Your task to perform on an android device: change alarm snooze length Image 0: 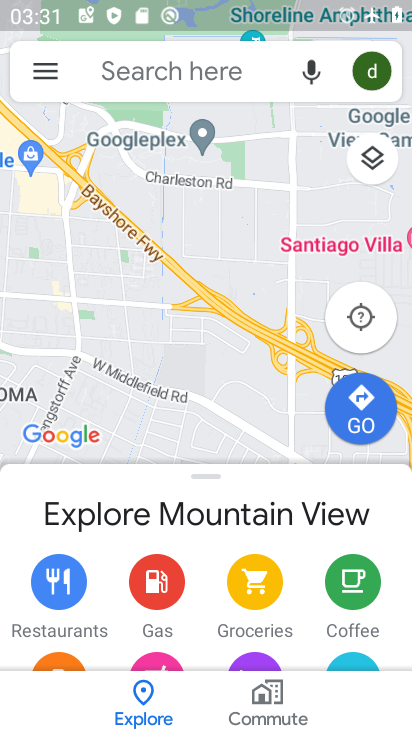
Step 0: press home button
Your task to perform on an android device: change alarm snooze length Image 1: 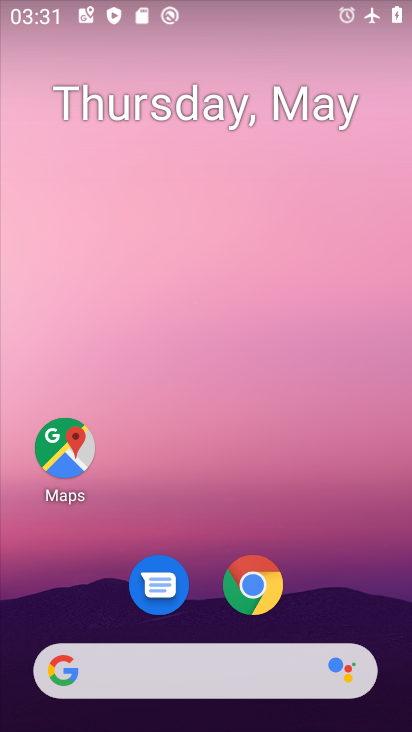
Step 1: drag from (226, 517) to (200, 1)
Your task to perform on an android device: change alarm snooze length Image 2: 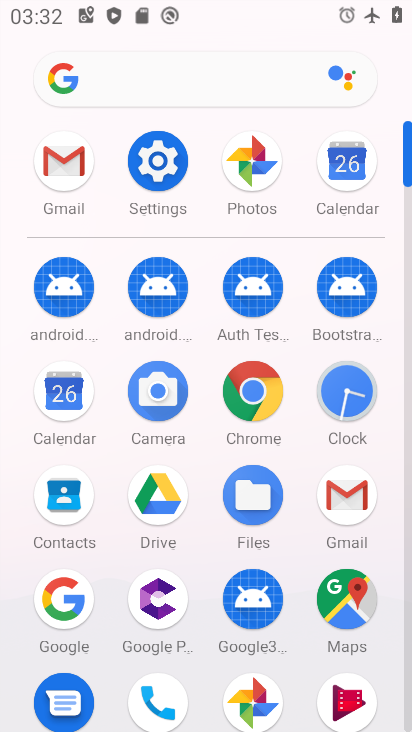
Step 2: click (342, 392)
Your task to perform on an android device: change alarm snooze length Image 3: 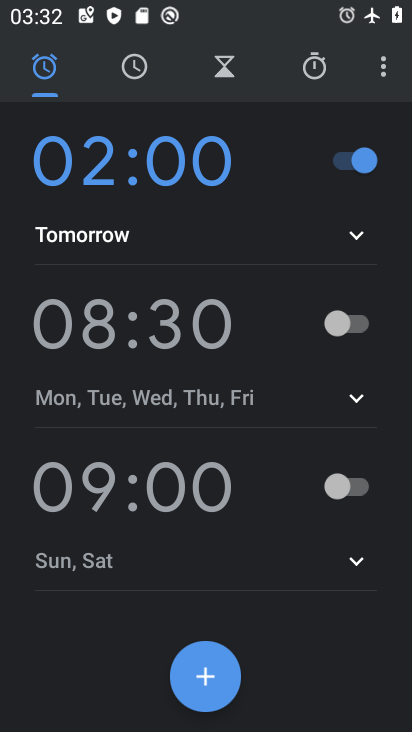
Step 3: click (378, 73)
Your task to perform on an android device: change alarm snooze length Image 4: 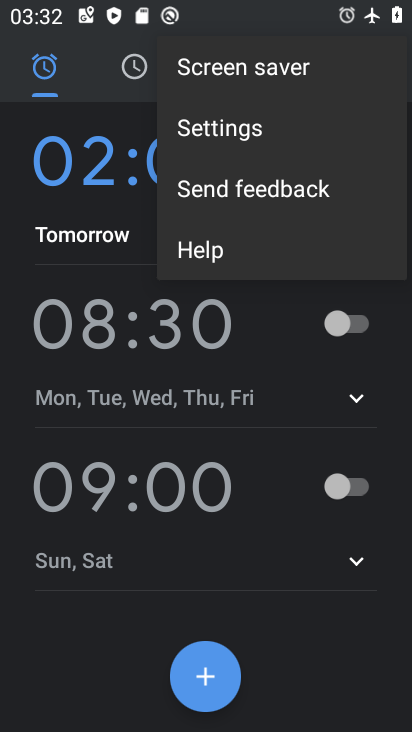
Step 4: click (263, 133)
Your task to perform on an android device: change alarm snooze length Image 5: 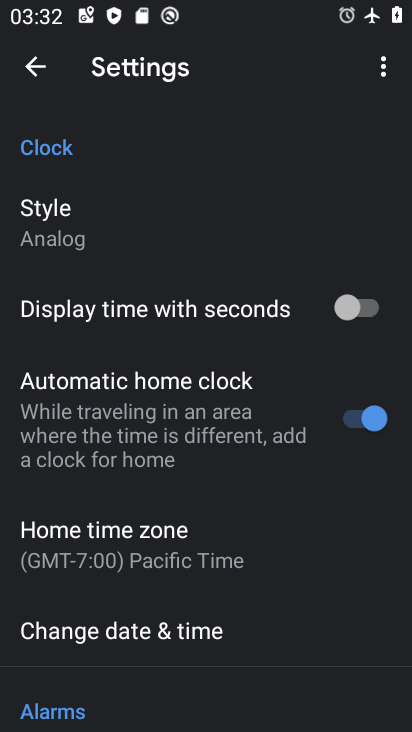
Step 5: drag from (177, 602) to (205, 147)
Your task to perform on an android device: change alarm snooze length Image 6: 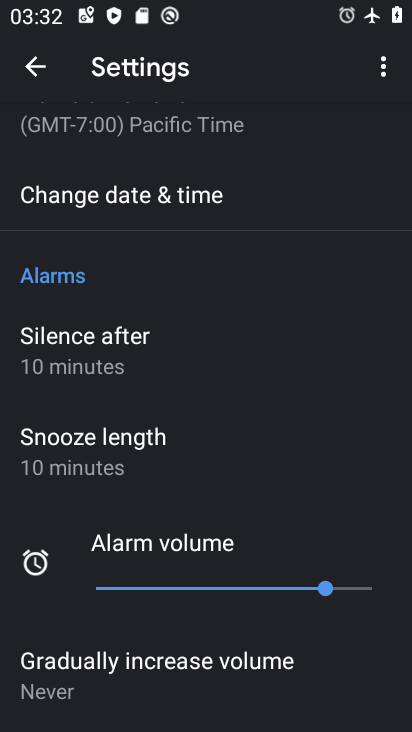
Step 6: drag from (194, 481) to (189, 441)
Your task to perform on an android device: change alarm snooze length Image 7: 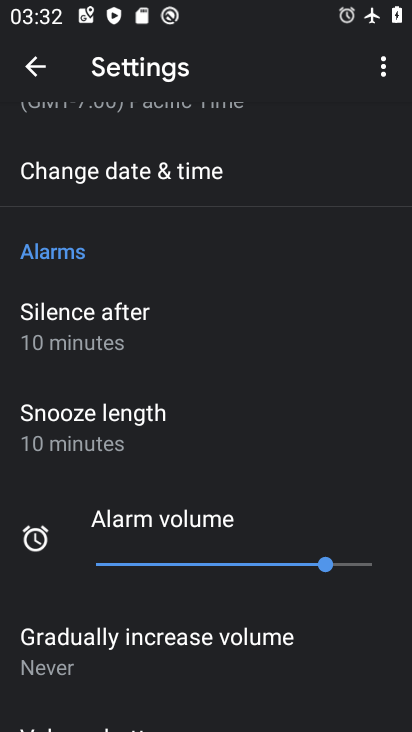
Step 7: click (189, 422)
Your task to perform on an android device: change alarm snooze length Image 8: 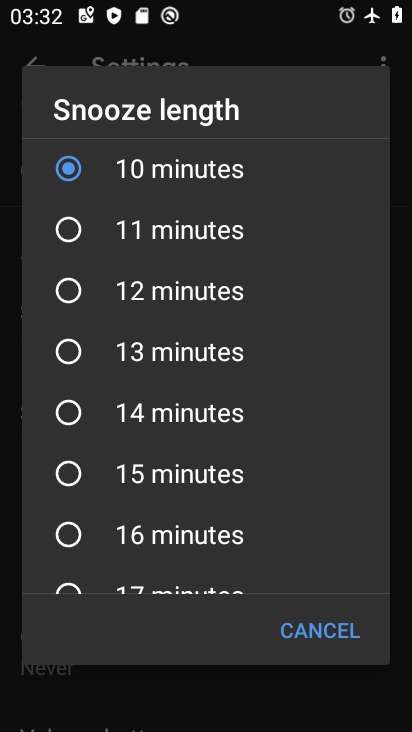
Step 8: click (67, 286)
Your task to perform on an android device: change alarm snooze length Image 9: 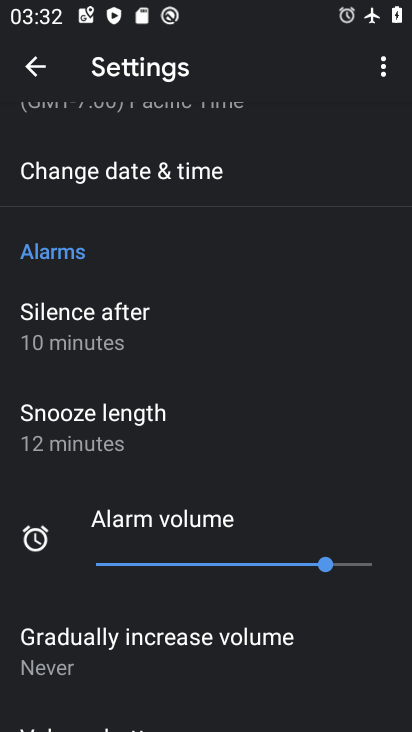
Step 9: task complete